Your task to perform on an android device: open app "Truecaller" (install if not already installed) Image 0: 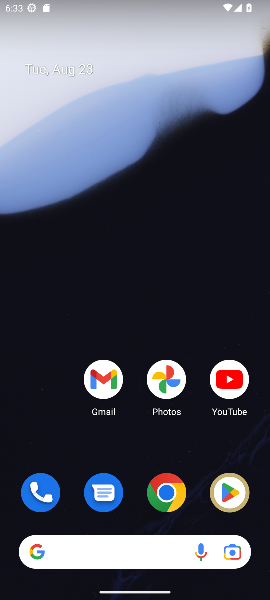
Step 0: press home button
Your task to perform on an android device: open app "Truecaller" (install if not already installed) Image 1: 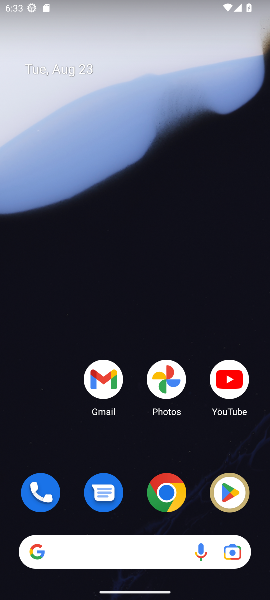
Step 1: drag from (63, 423) to (69, 54)
Your task to perform on an android device: open app "Truecaller" (install if not already installed) Image 2: 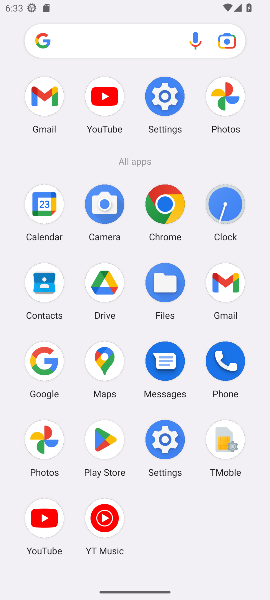
Step 2: click (96, 441)
Your task to perform on an android device: open app "Truecaller" (install if not already installed) Image 3: 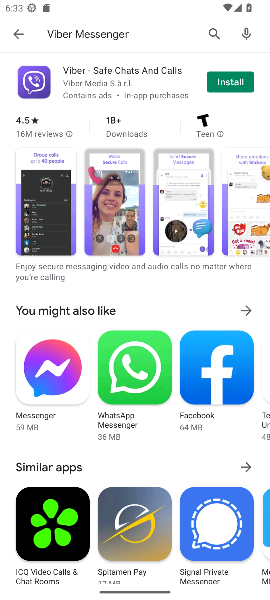
Step 3: press back button
Your task to perform on an android device: open app "Truecaller" (install if not already installed) Image 4: 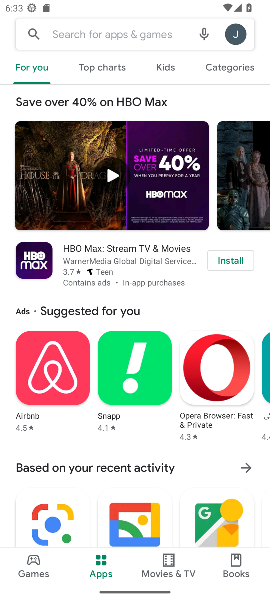
Step 4: click (111, 34)
Your task to perform on an android device: open app "Truecaller" (install if not already installed) Image 5: 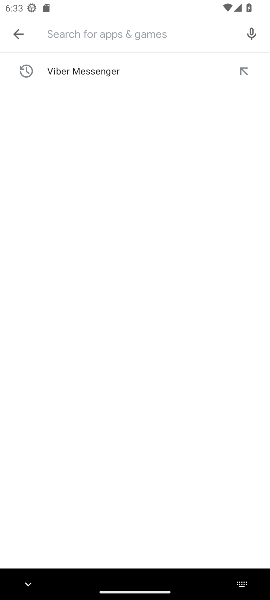
Step 5: type "Truecaller"
Your task to perform on an android device: open app "Truecaller" (install if not already installed) Image 6: 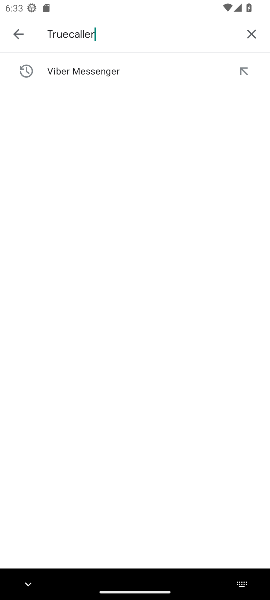
Step 6: press enter
Your task to perform on an android device: open app "Truecaller" (install if not already installed) Image 7: 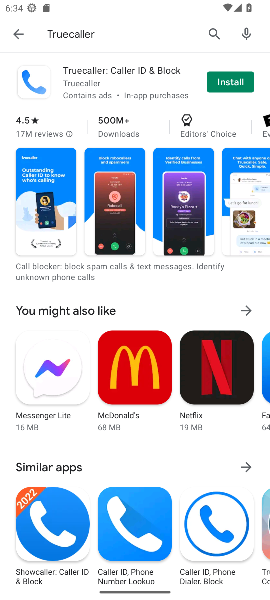
Step 7: click (227, 82)
Your task to perform on an android device: open app "Truecaller" (install if not already installed) Image 8: 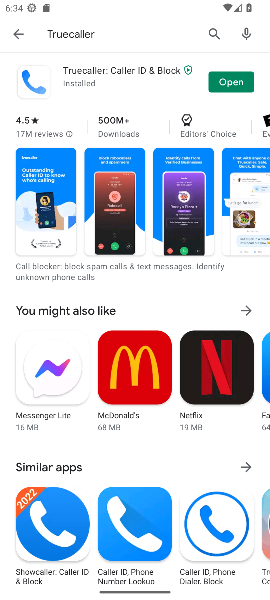
Step 8: click (226, 86)
Your task to perform on an android device: open app "Truecaller" (install if not already installed) Image 9: 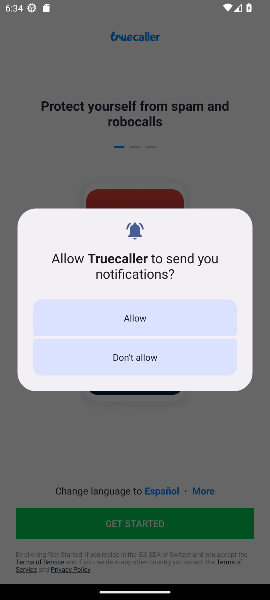
Step 9: task complete